Your task to perform on an android device: Open Google Chrome and click the shortcut for Amazon.com Image 0: 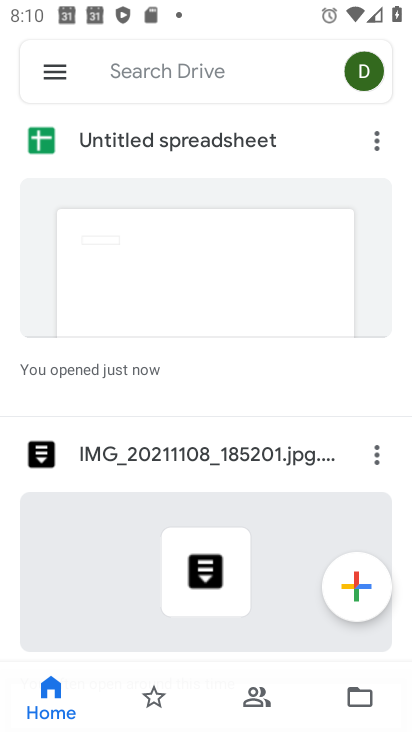
Step 0: press home button
Your task to perform on an android device: Open Google Chrome and click the shortcut for Amazon.com Image 1: 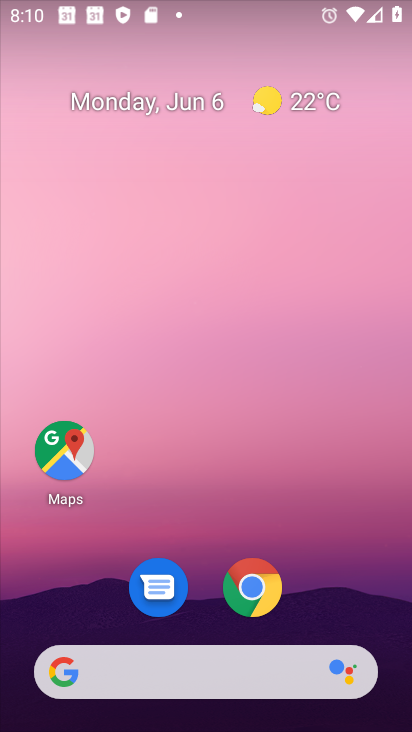
Step 1: drag from (154, 666) to (183, 385)
Your task to perform on an android device: Open Google Chrome and click the shortcut for Amazon.com Image 2: 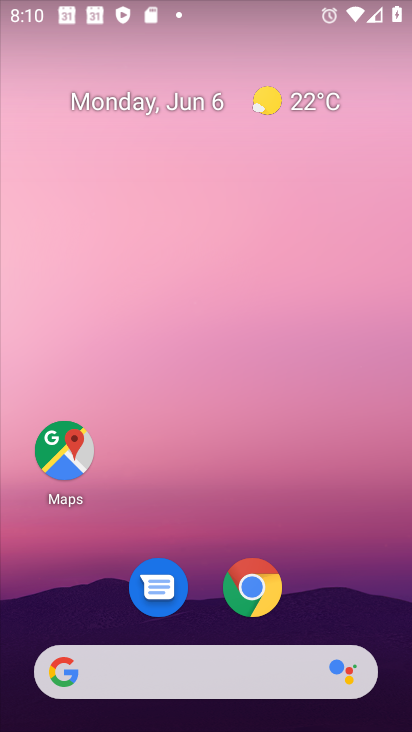
Step 2: click (251, 597)
Your task to perform on an android device: Open Google Chrome and click the shortcut for Amazon.com Image 3: 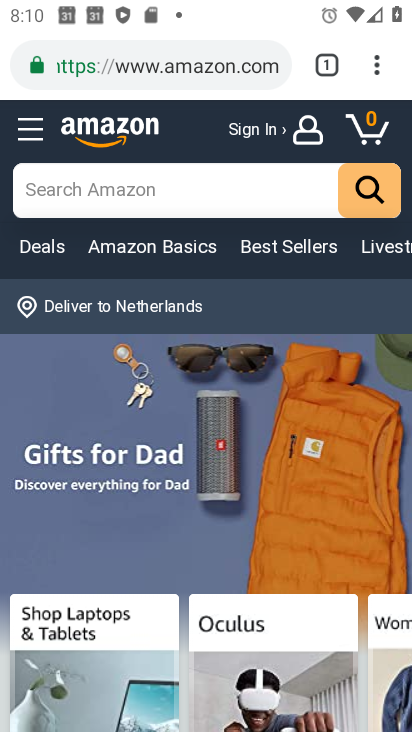
Step 3: task complete